Your task to perform on an android device: choose inbox layout in the gmail app Image 0: 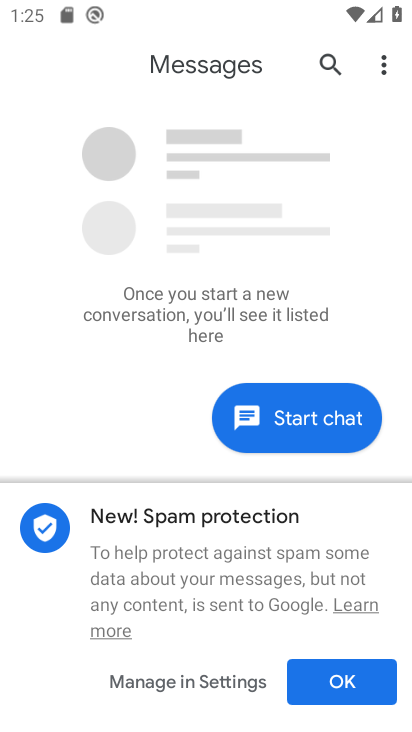
Step 0: press home button
Your task to perform on an android device: choose inbox layout in the gmail app Image 1: 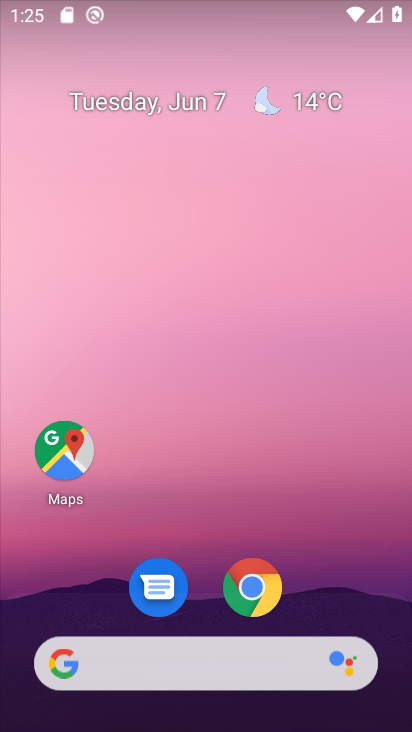
Step 1: drag from (100, 636) to (246, 98)
Your task to perform on an android device: choose inbox layout in the gmail app Image 2: 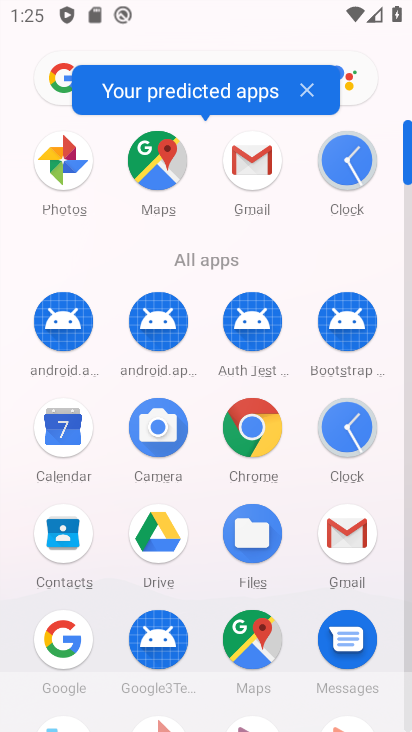
Step 2: click (349, 533)
Your task to perform on an android device: choose inbox layout in the gmail app Image 3: 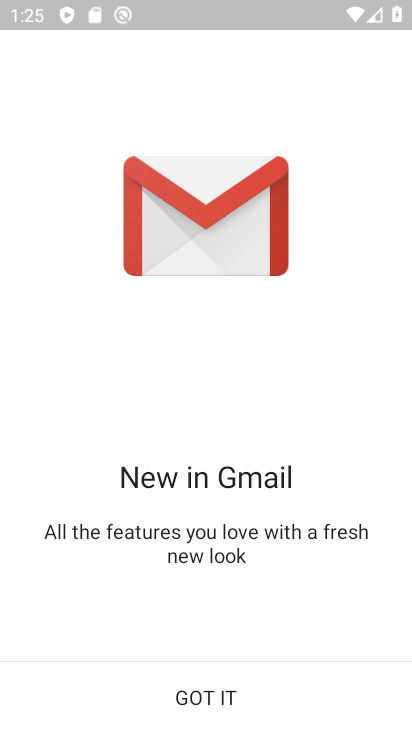
Step 3: click (255, 684)
Your task to perform on an android device: choose inbox layout in the gmail app Image 4: 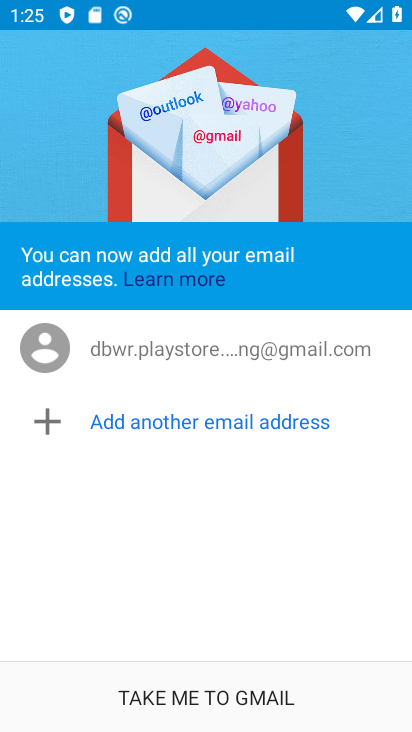
Step 4: click (255, 685)
Your task to perform on an android device: choose inbox layout in the gmail app Image 5: 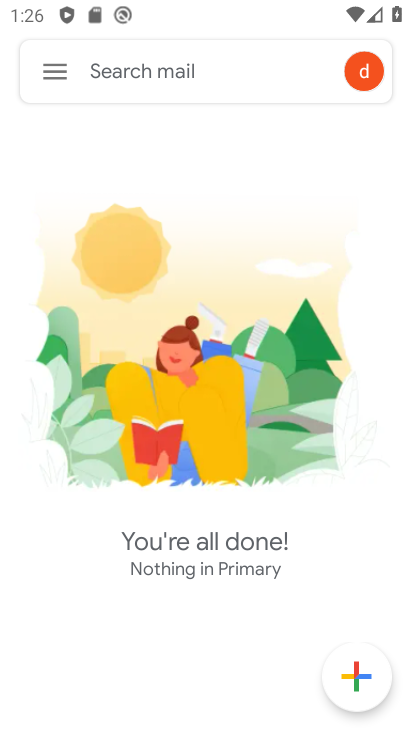
Step 5: click (280, 693)
Your task to perform on an android device: choose inbox layout in the gmail app Image 6: 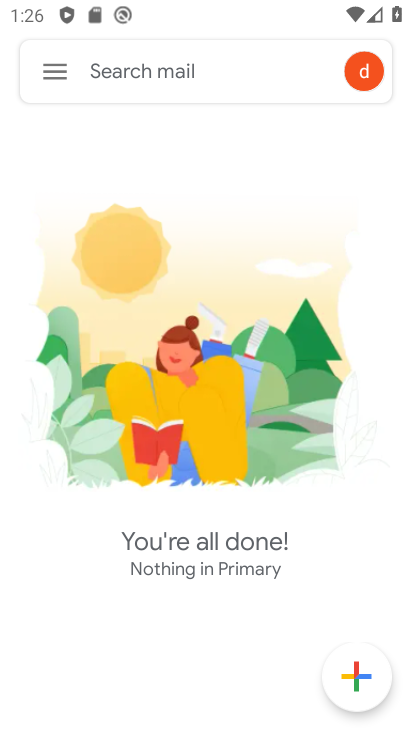
Step 6: click (62, 71)
Your task to perform on an android device: choose inbox layout in the gmail app Image 7: 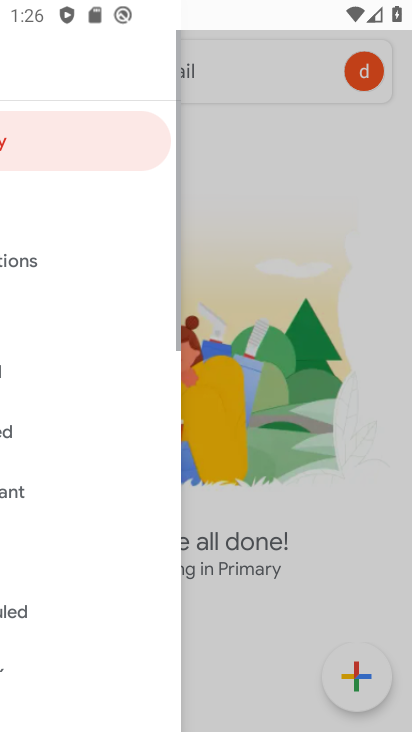
Step 7: click (61, 76)
Your task to perform on an android device: choose inbox layout in the gmail app Image 8: 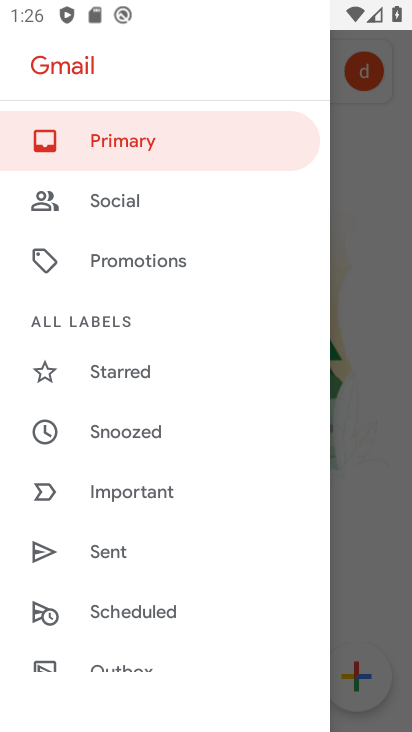
Step 8: drag from (178, 656) to (267, 243)
Your task to perform on an android device: choose inbox layout in the gmail app Image 9: 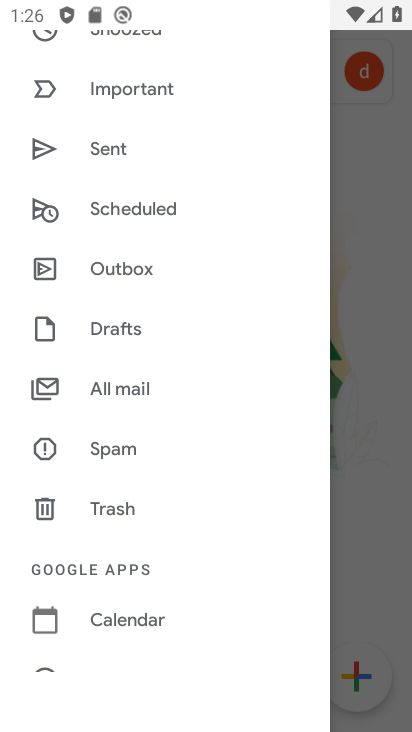
Step 9: drag from (187, 641) to (265, 252)
Your task to perform on an android device: choose inbox layout in the gmail app Image 10: 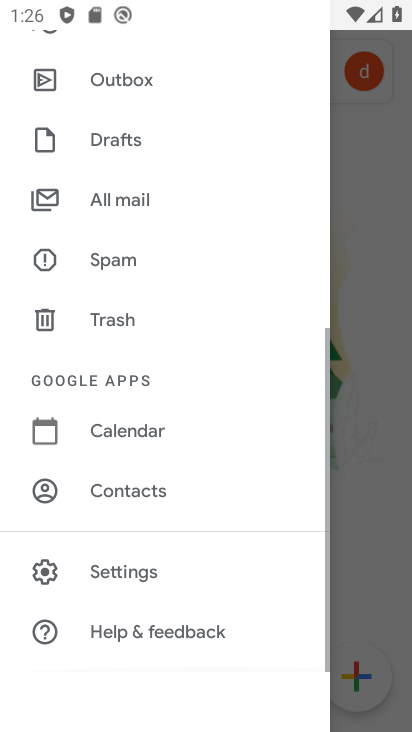
Step 10: click (182, 573)
Your task to perform on an android device: choose inbox layout in the gmail app Image 11: 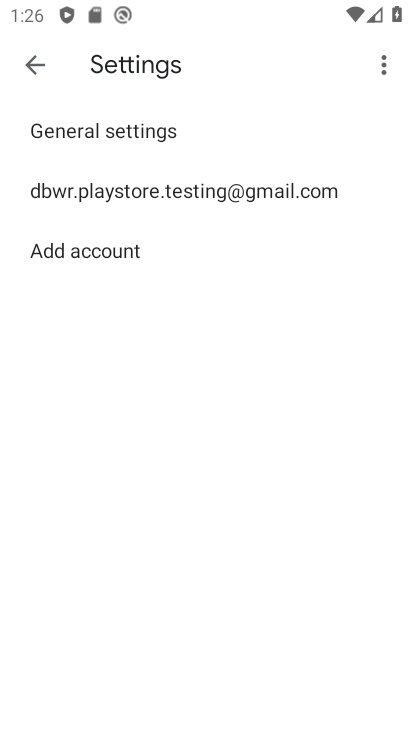
Step 11: click (227, 218)
Your task to perform on an android device: choose inbox layout in the gmail app Image 12: 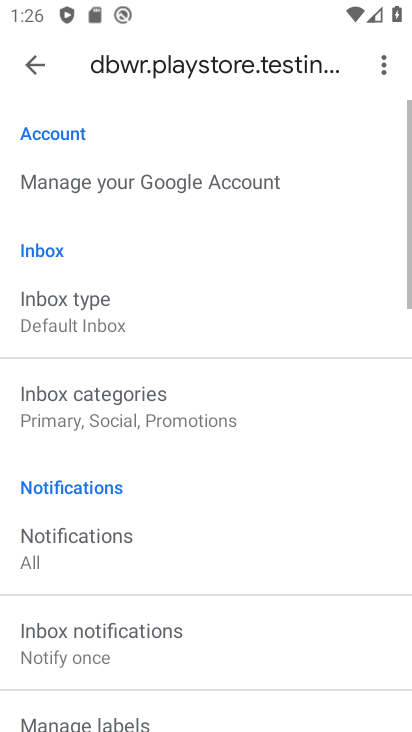
Step 12: click (205, 321)
Your task to perform on an android device: choose inbox layout in the gmail app Image 13: 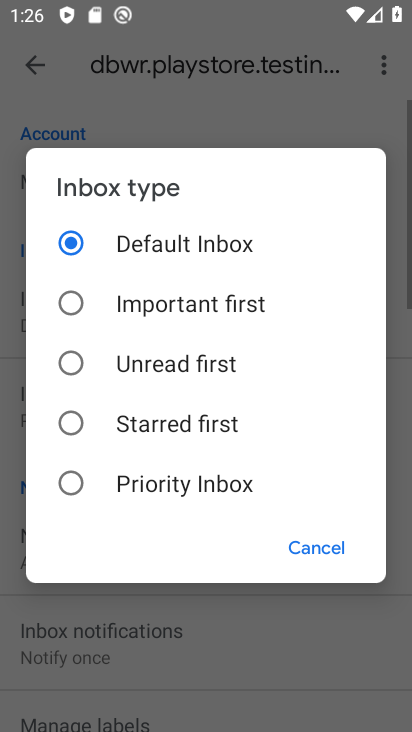
Step 13: click (198, 484)
Your task to perform on an android device: choose inbox layout in the gmail app Image 14: 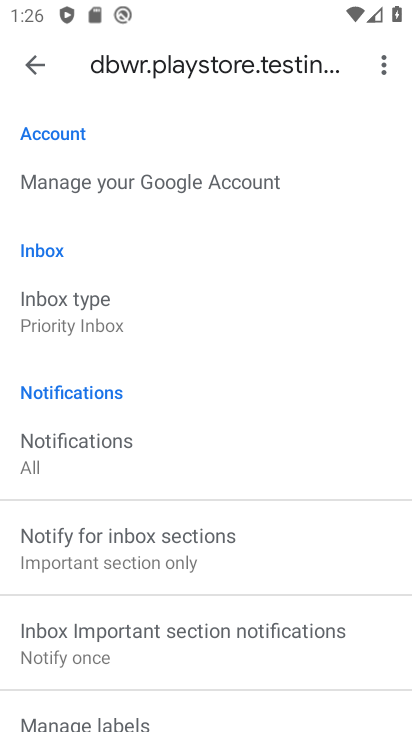
Step 14: task complete